Your task to perform on an android device: Set the phone to "Do not disturb". Image 0: 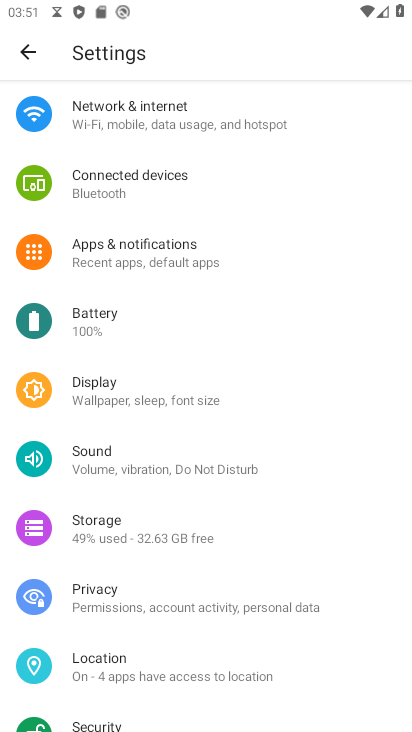
Step 0: click (185, 457)
Your task to perform on an android device: Set the phone to "Do not disturb". Image 1: 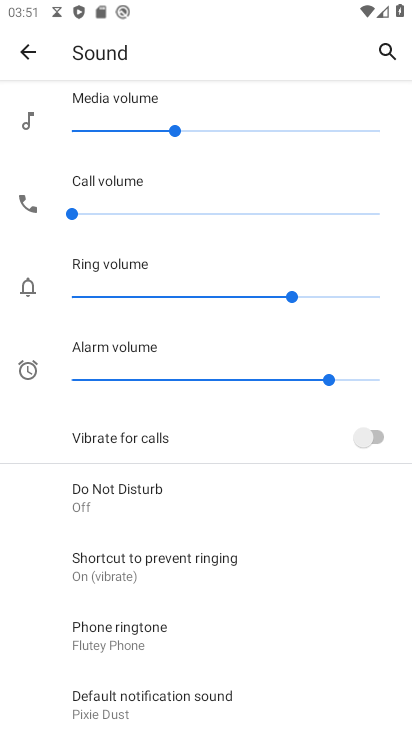
Step 1: click (139, 481)
Your task to perform on an android device: Set the phone to "Do not disturb". Image 2: 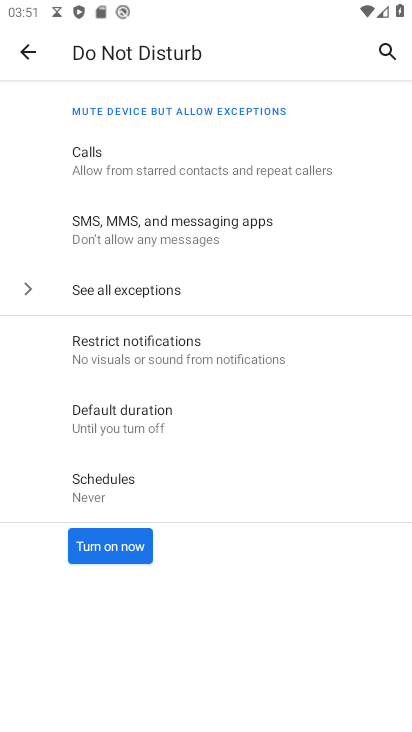
Step 2: click (120, 528)
Your task to perform on an android device: Set the phone to "Do not disturb". Image 3: 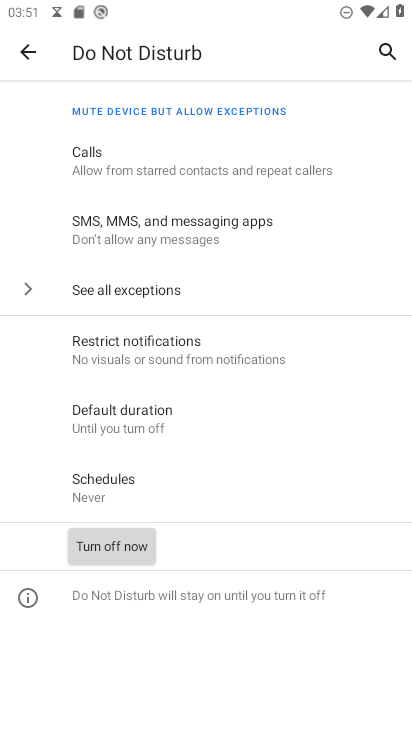
Step 3: task complete